Your task to perform on an android device: open chrome and create a bookmark for the current page Image 0: 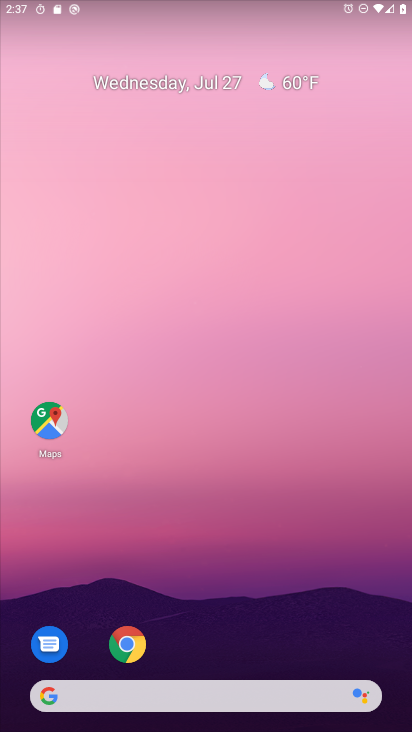
Step 0: drag from (220, 660) to (249, 319)
Your task to perform on an android device: open chrome and create a bookmark for the current page Image 1: 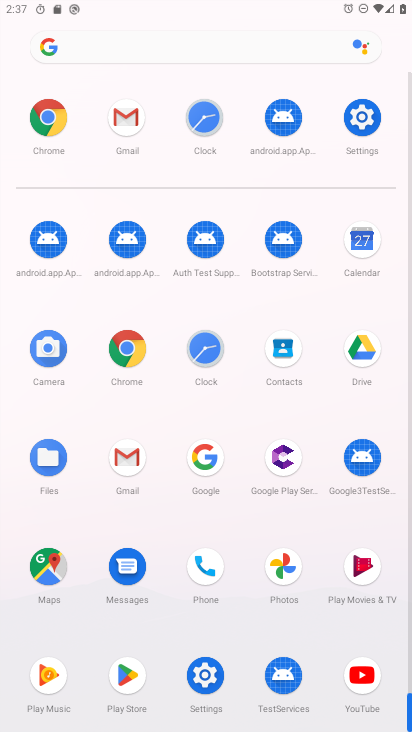
Step 1: click (131, 354)
Your task to perform on an android device: open chrome and create a bookmark for the current page Image 2: 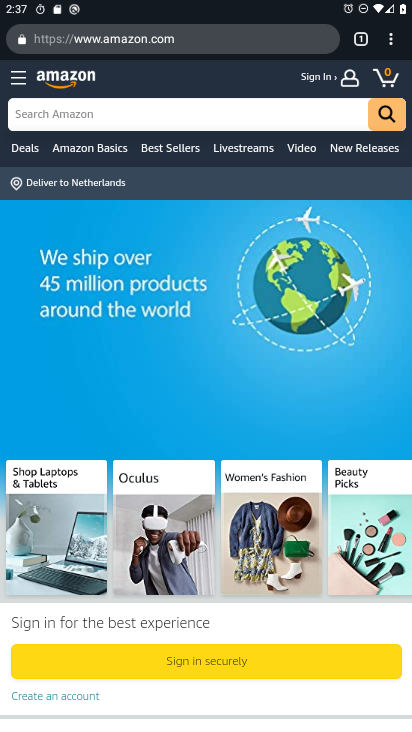
Step 2: drag from (196, 558) to (255, 278)
Your task to perform on an android device: open chrome and create a bookmark for the current page Image 3: 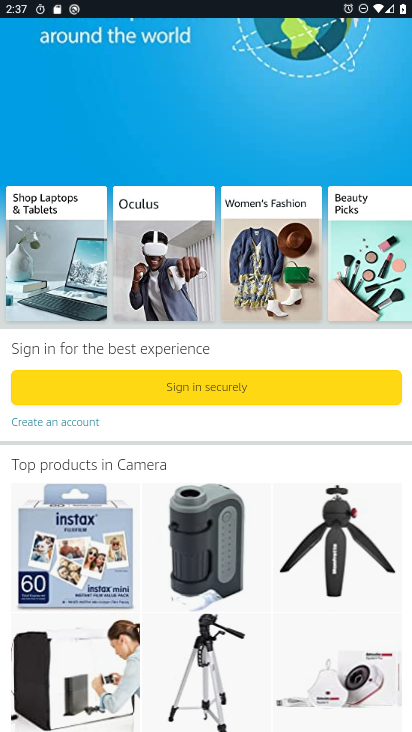
Step 3: drag from (155, 214) to (292, 725)
Your task to perform on an android device: open chrome and create a bookmark for the current page Image 4: 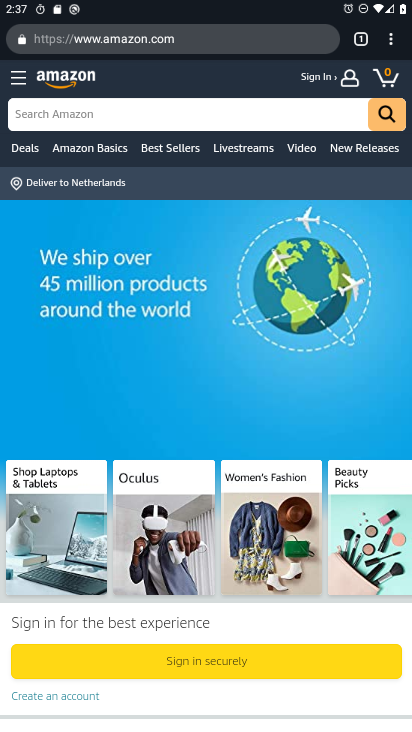
Step 4: drag from (393, 38) to (306, 194)
Your task to perform on an android device: open chrome and create a bookmark for the current page Image 5: 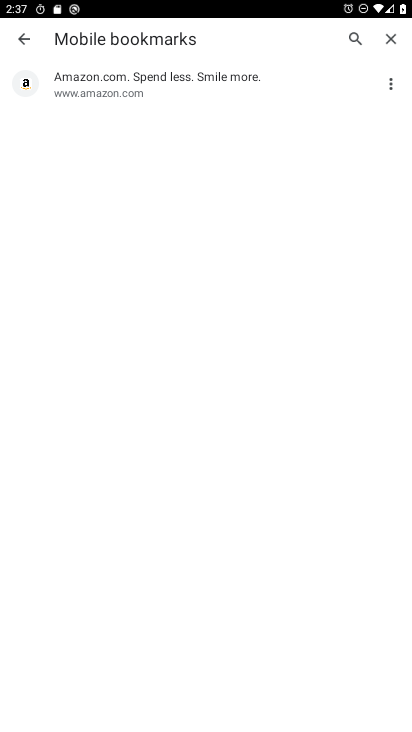
Step 5: click (23, 32)
Your task to perform on an android device: open chrome and create a bookmark for the current page Image 6: 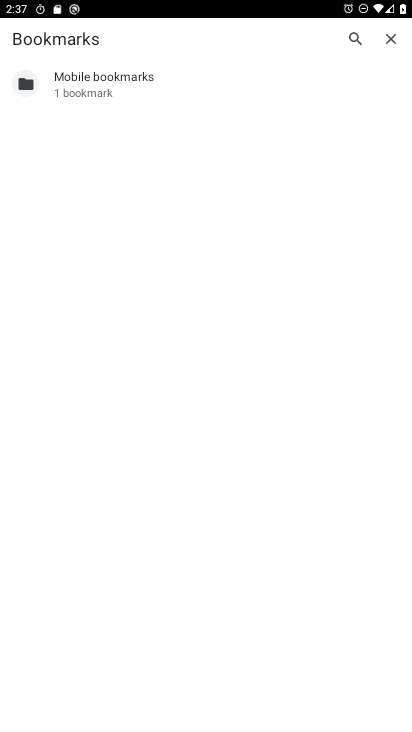
Step 6: click (394, 38)
Your task to perform on an android device: open chrome and create a bookmark for the current page Image 7: 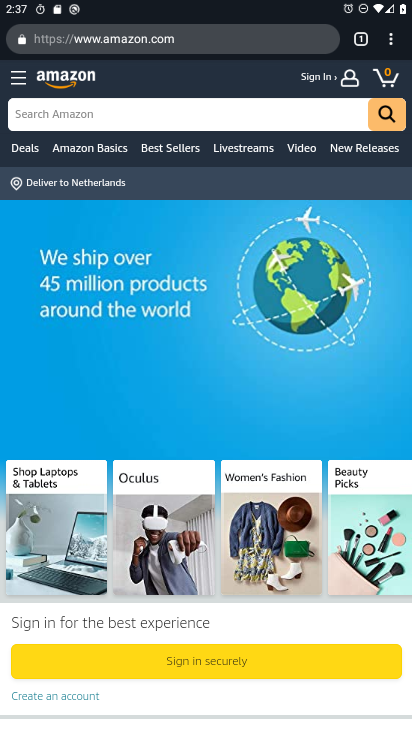
Step 7: click (383, 37)
Your task to perform on an android device: open chrome and create a bookmark for the current page Image 8: 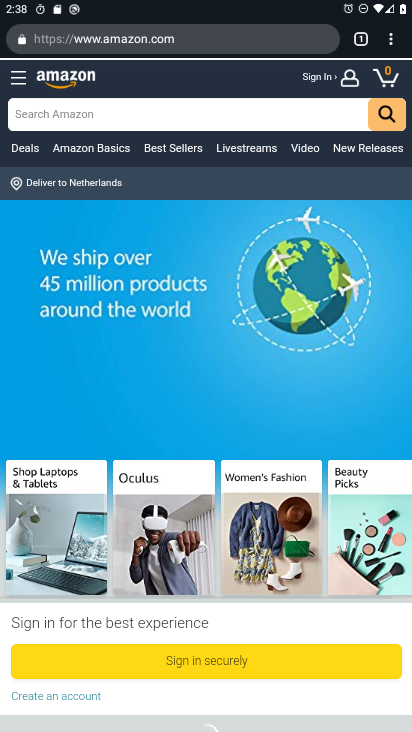
Step 8: task complete